Your task to perform on an android device: see tabs open on other devices in the chrome app Image 0: 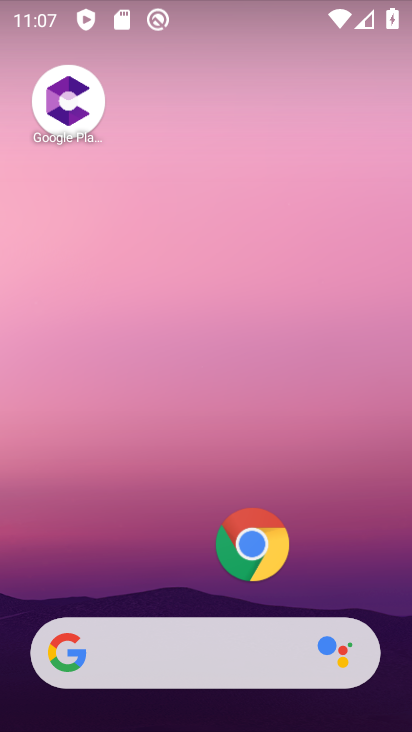
Step 0: drag from (227, 613) to (297, 1)
Your task to perform on an android device: see tabs open on other devices in the chrome app Image 1: 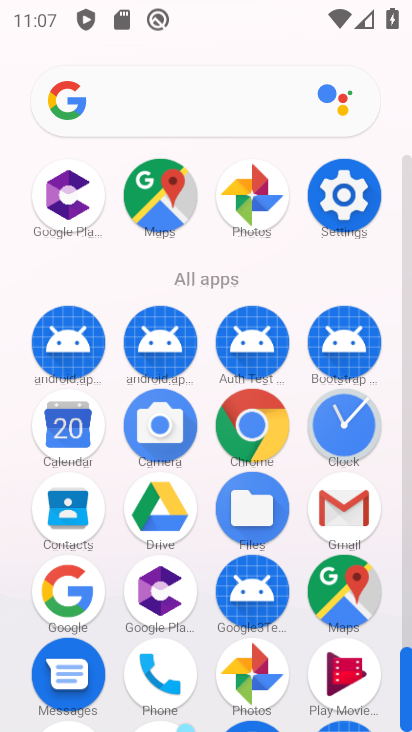
Step 1: click (256, 424)
Your task to perform on an android device: see tabs open on other devices in the chrome app Image 2: 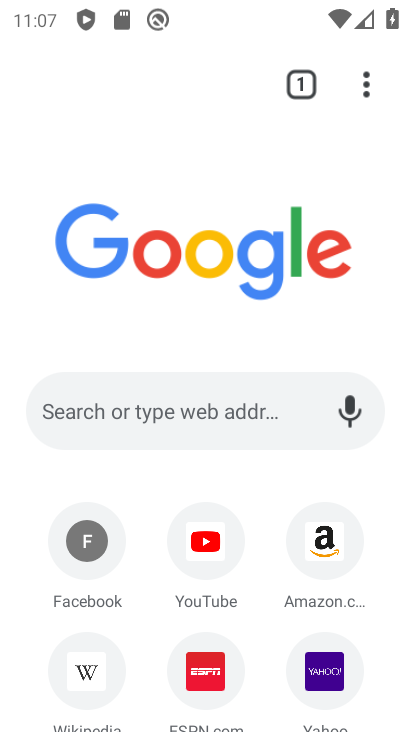
Step 2: click (293, 88)
Your task to perform on an android device: see tabs open on other devices in the chrome app Image 3: 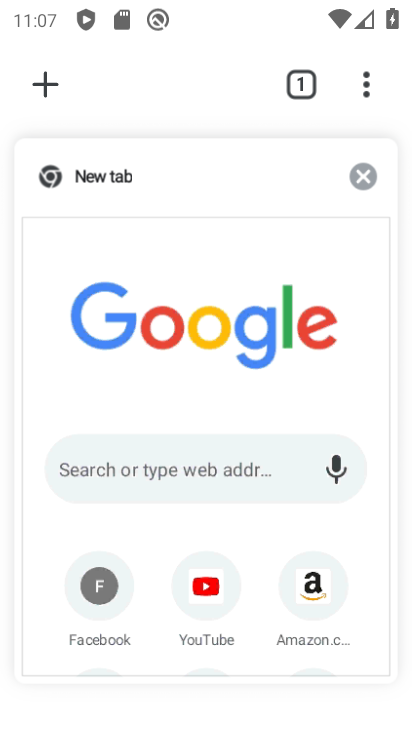
Step 3: task complete